Your task to perform on an android device: Open settings on Google Maps Image 0: 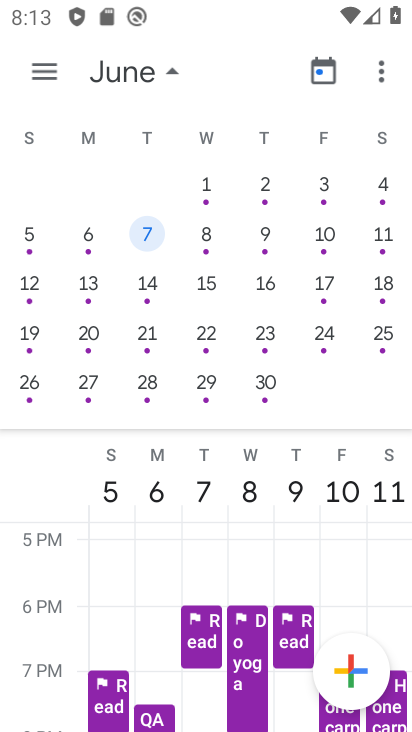
Step 0: press home button
Your task to perform on an android device: Open settings on Google Maps Image 1: 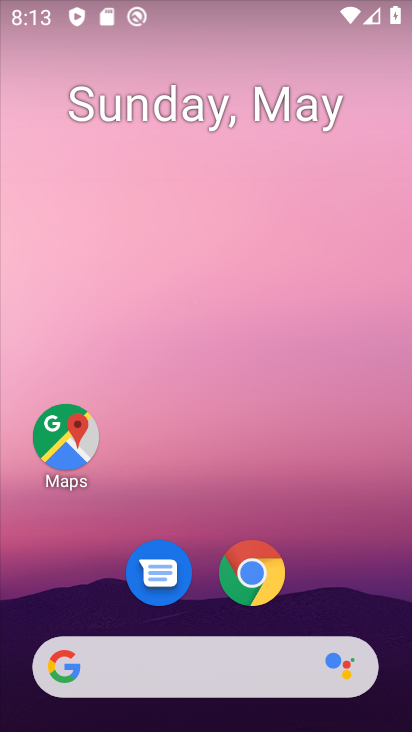
Step 1: click (77, 425)
Your task to perform on an android device: Open settings on Google Maps Image 2: 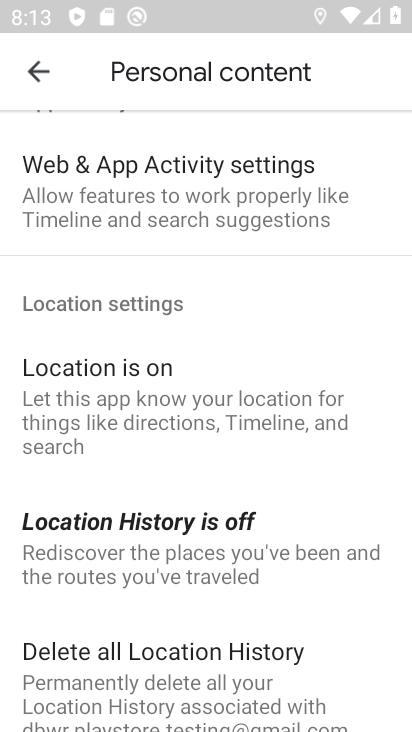
Step 2: click (37, 75)
Your task to perform on an android device: Open settings on Google Maps Image 3: 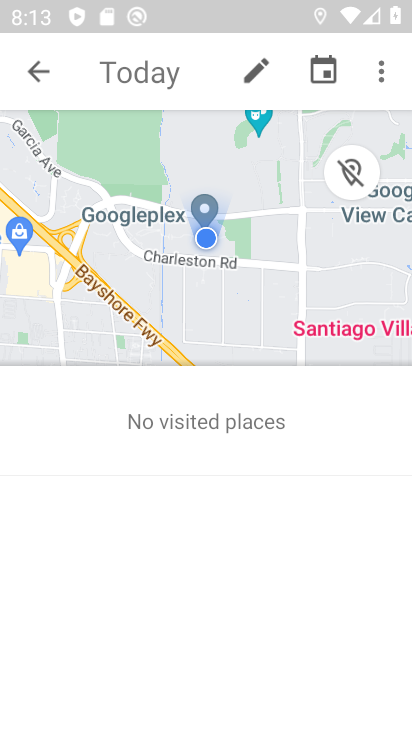
Step 3: click (37, 75)
Your task to perform on an android device: Open settings on Google Maps Image 4: 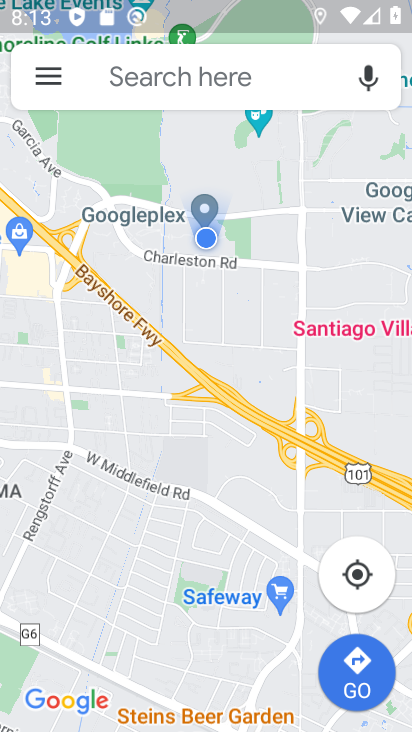
Step 4: click (45, 77)
Your task to perform on an android device: Open settings on Google Maps Image 5: 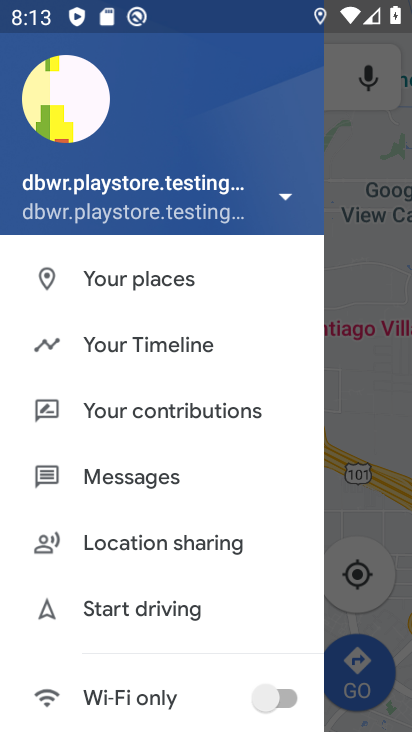
Step 5: drag from (144, 676) to (133, 123)
Your task to perform on an android device: Open settings on Google Maps Image 6: 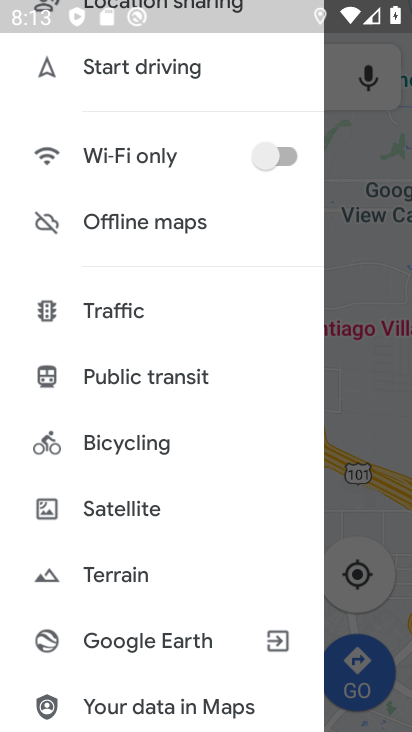
Step 6: drag from (154, 671) to (181, 82)
Your task to perform on an android device: Open settings on Google Maps Image 7: 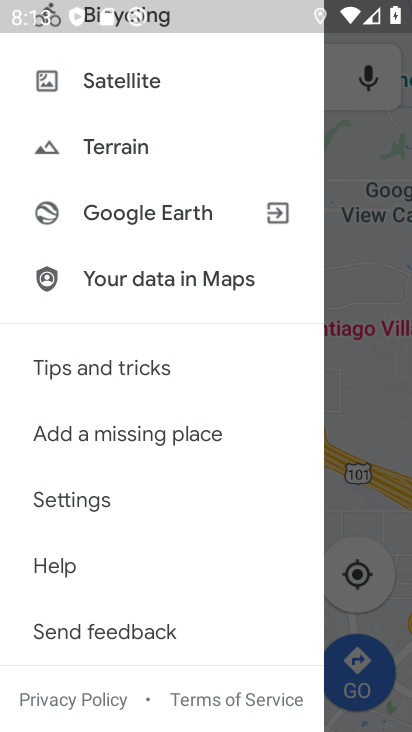
Step 7: click (127, 493)
Your task to perform on an android device: Open settings on Google Maps Image 8: 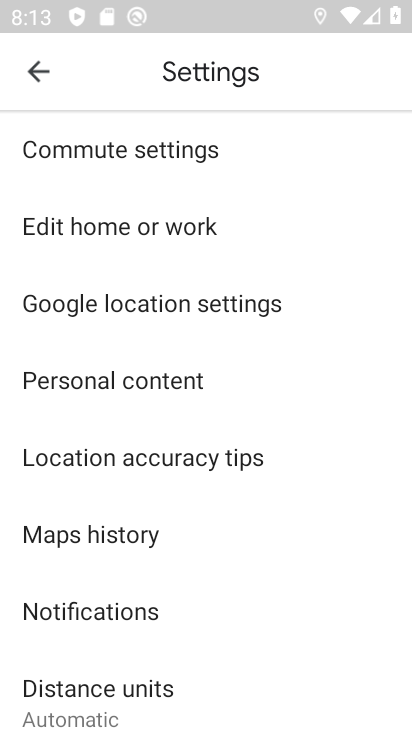
Step 8: task complete